Your task to perform on an android device: open device folders in google photos Image 0: 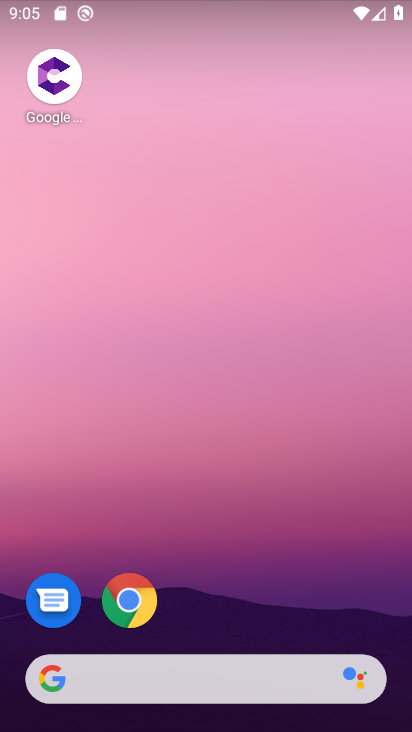
Step 0: drag from (203, 729) to (193, 1)
Your task to perform on an android device: open device folders in google photos Image 1: 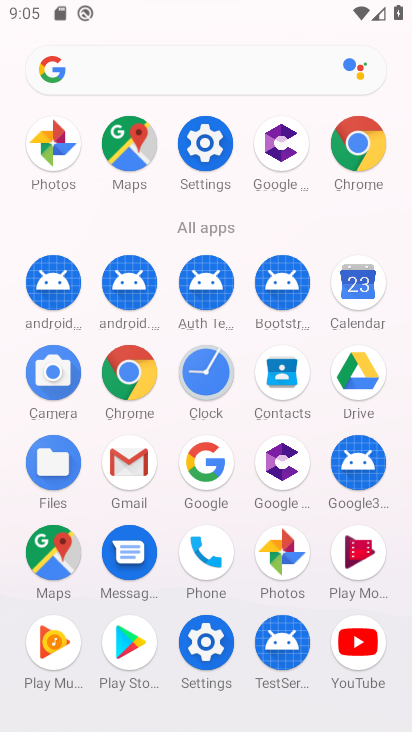
Step 1: click (279, 553)
Your task to perform on an android device: open device folders in google photos Image 2: 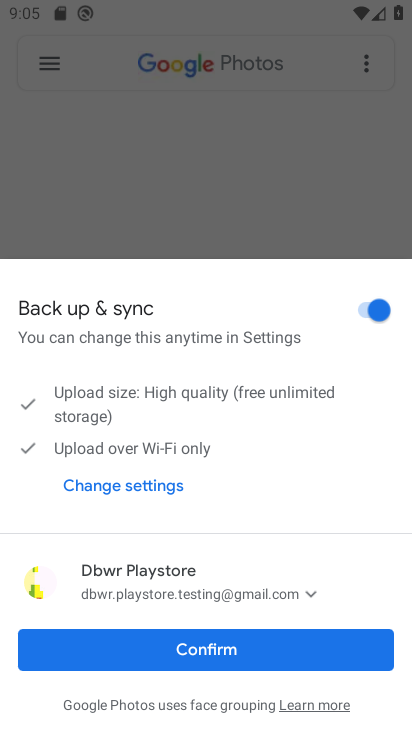
Step 2: click (231, 651)
Your task to perform on an android device: open device folders in google photos Image 3: 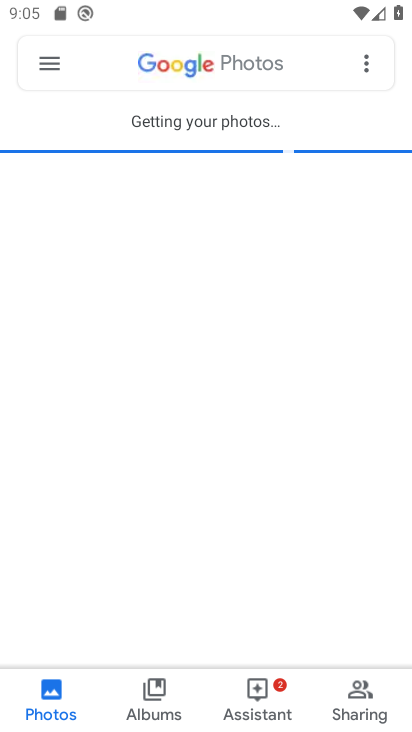
Step 3: click (51, 62)
Your task to perform on an android device: open device folders in google photos Image 4: 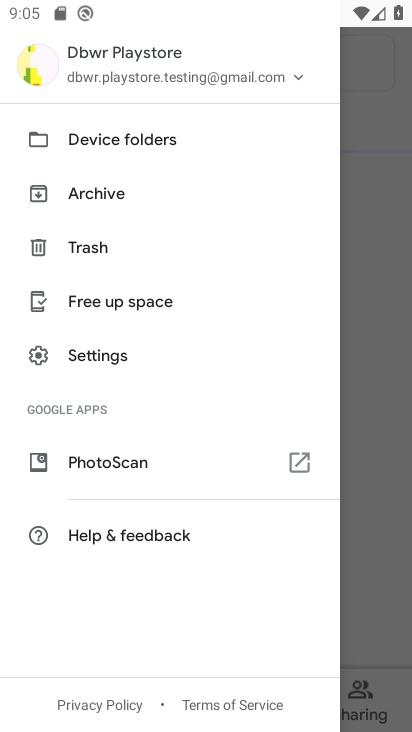
Step 4: click (92, 138)
Your task to perform on an android device: open device folders in google photos Image 5: 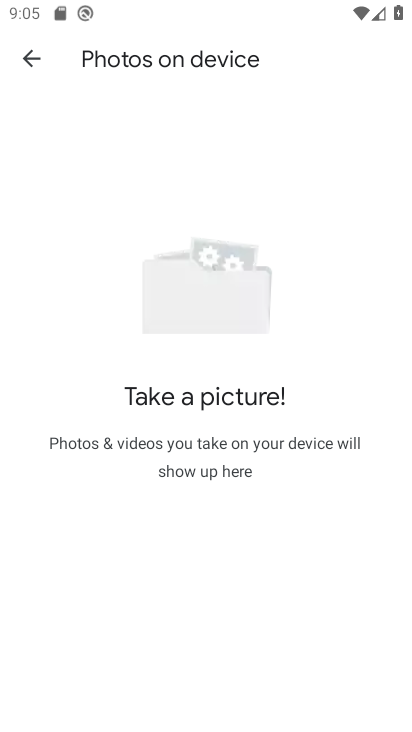
Step 5: task complete